Your task to perform on an android device: open a bookmark in the chrome app Image 0: 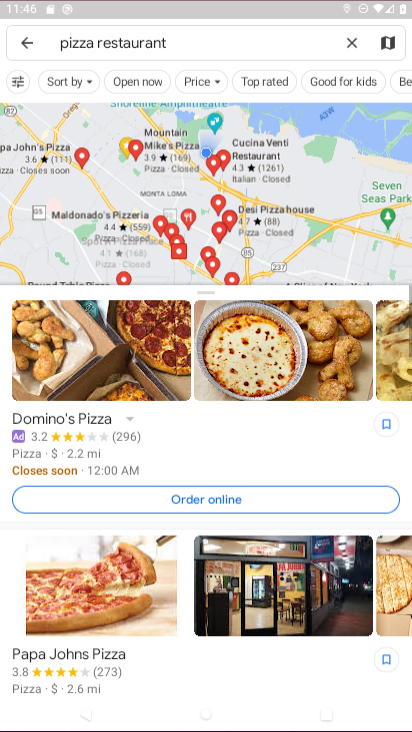
Step 0: press home button
Your task to perform on an android device: open a bookmark in the chrome app Image 1: 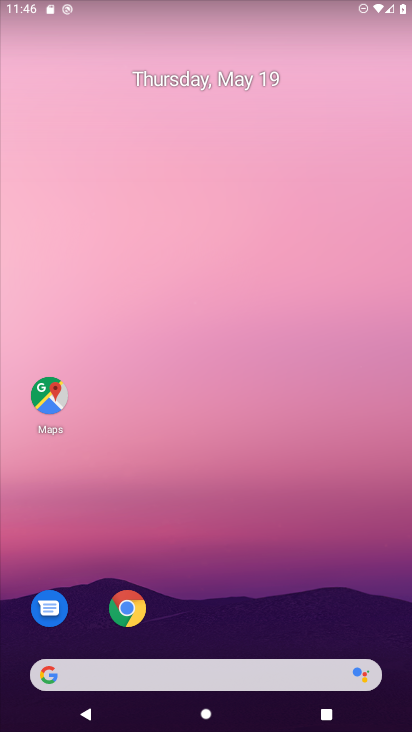
Step 1: click (136, 610)
Your task to perform on an android device: open a bookmark in the chrome app Image 2: 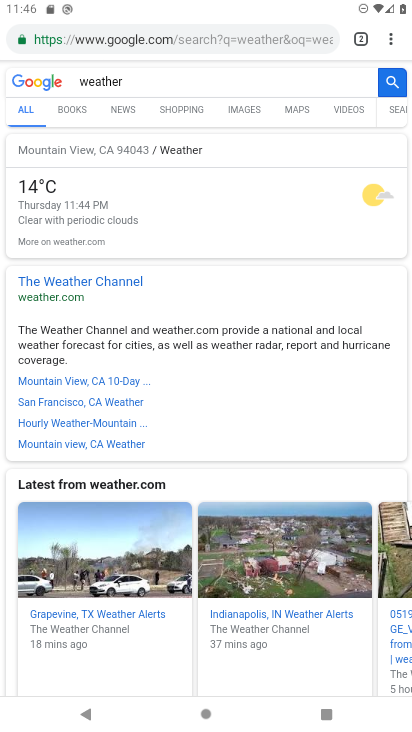
Step 2: task complete